Your task to perform on an android device: install app "Duolingo: language lessons" Image 0: 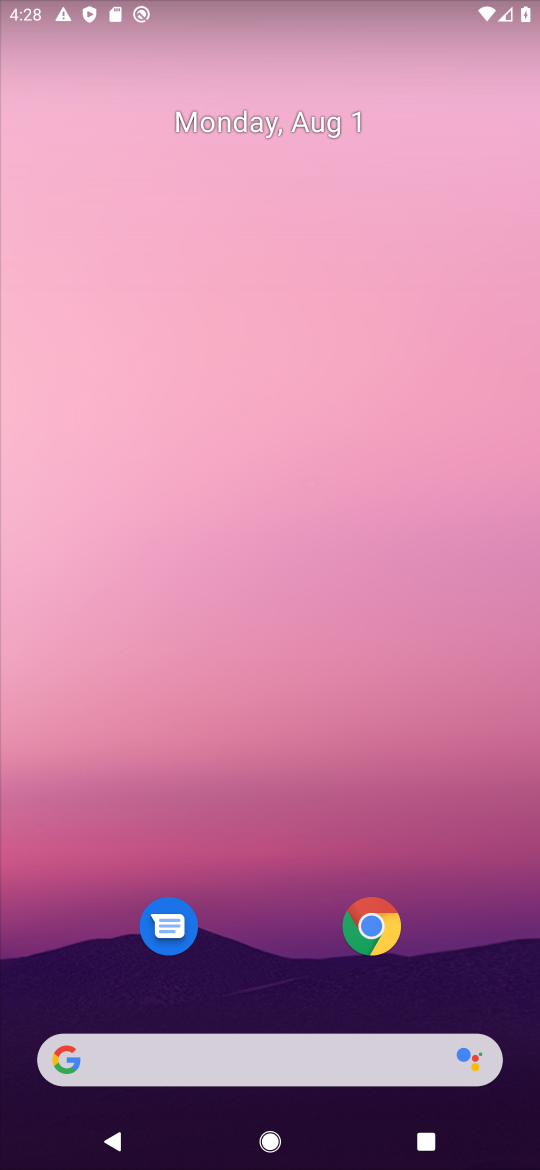
Step 0: drag from (266, 893) to (293, 155)
Your task to perform on an android device: install app "Duolingo: language lessons" Image 1: 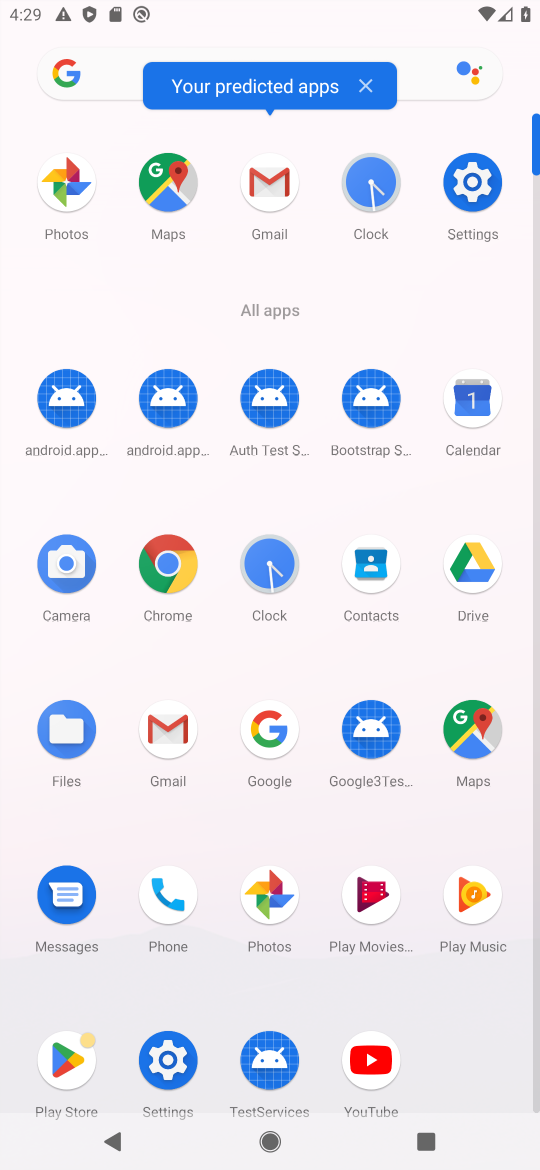
Step 1: click (70, 1062)
Your task to perform on an android device: install app "Duolingo: language lessons" Image 2: 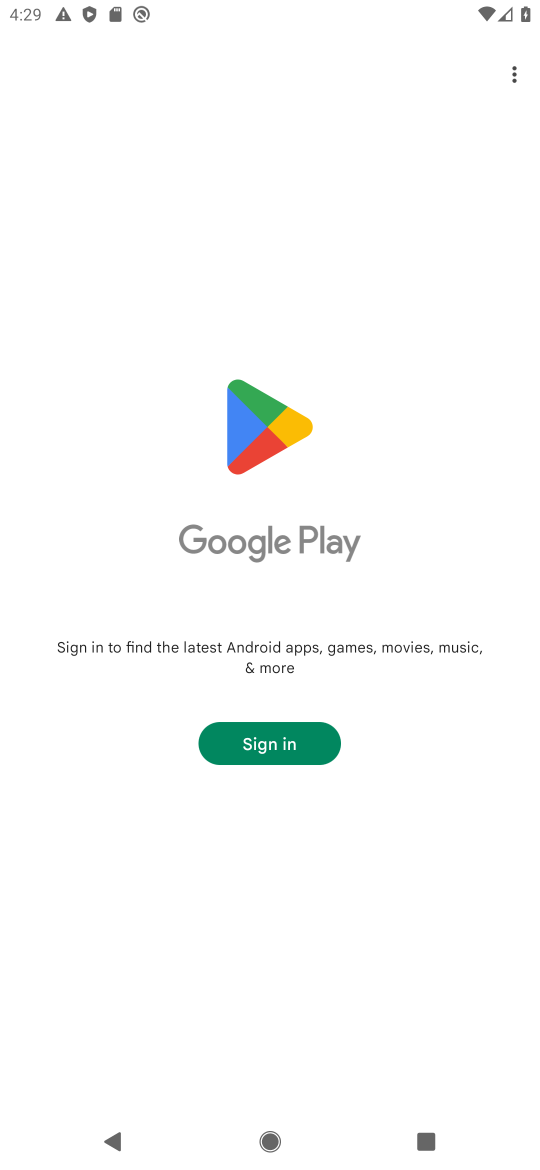
Step 2: task complete